Your task to perform on an android device: open app "Viber Messenger" (install if not already installed) Image 0: 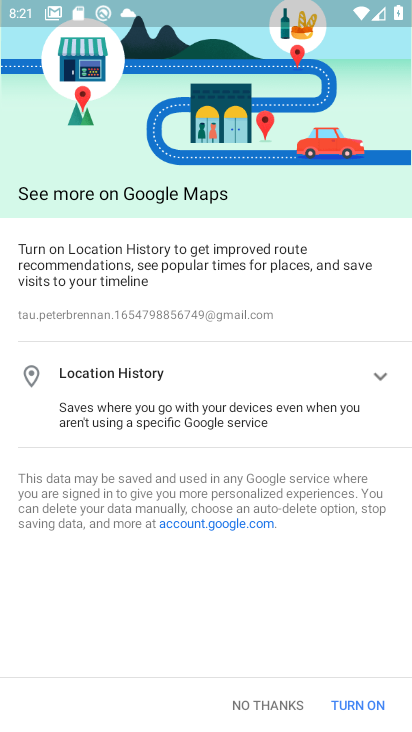
Step 0: press home button
Your task to perform on an android device: open app "Viber Messenger" (install if not already installed) Image 1: 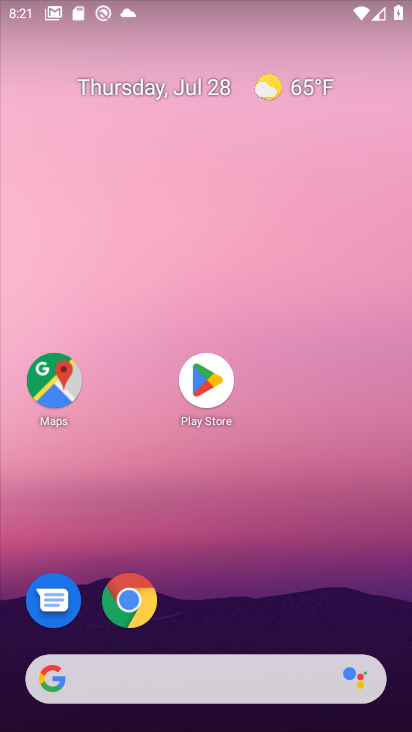
Step 1: click (210, 387)
Your task to perform on an android device: open app "Viber Messenger" (install if not already installed) Image 2: 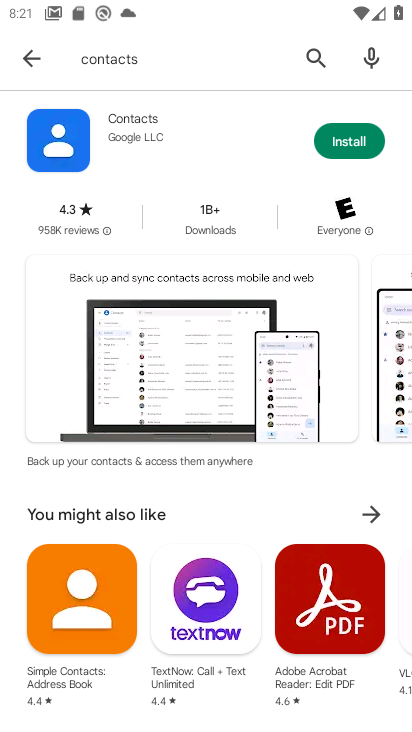
Step 2: click (308, 53)
Your task to perform on an android device: open app "Viber Messenger" (install if not already installed) Image 3: 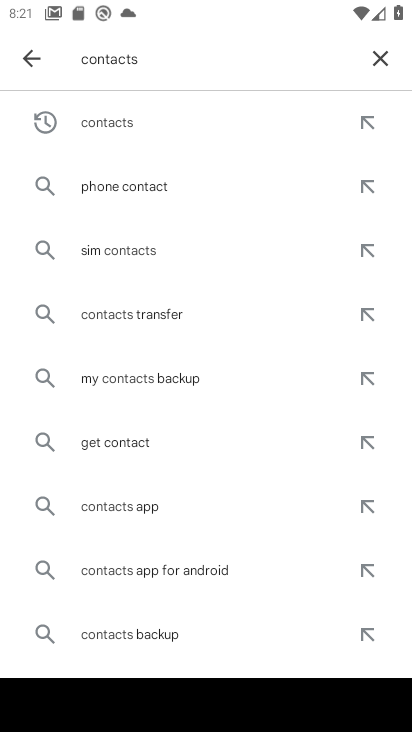
Step 3: click (379, 53)
Your task to perform on an android device: open app "Viber Messenger" (install if not already installed) Image 4: 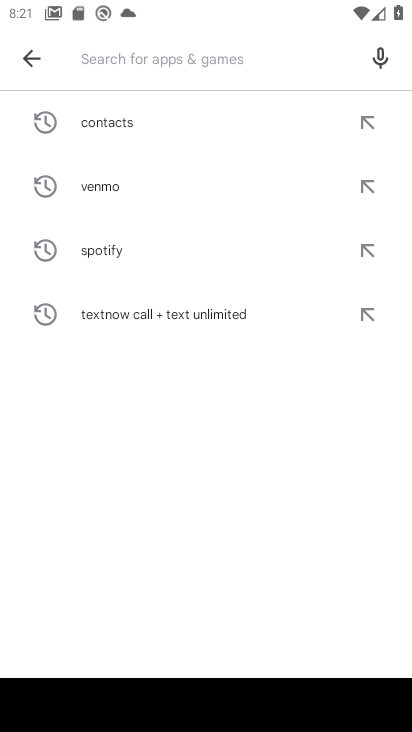
Step 4: type "Viber Messenger"
Your task to perform on an android device: open app "Viber Messenger" (install if not already installed) Image 5: 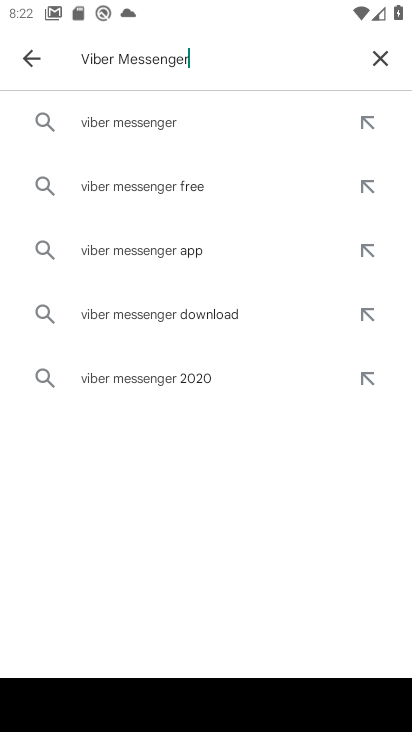
Step 5: click (143, 120)
Your task to perform on an android device: open app "Viber Messenger" (install if not already installed) Image 6: 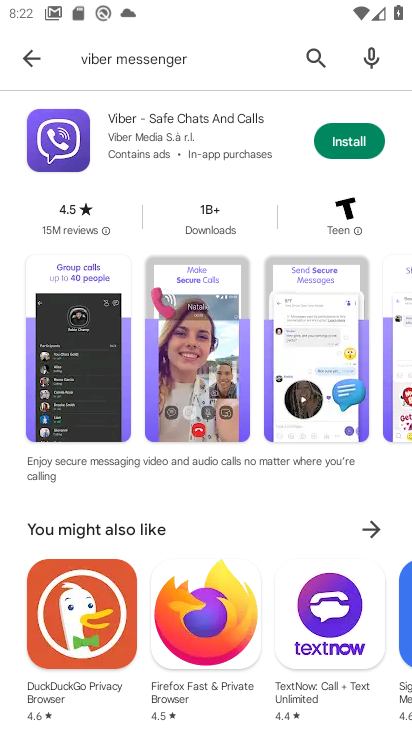
Step 6: click (343, 144)
Your task to perform on an android device: open app "Viber Messenger" (install if not already installed) Image 7: 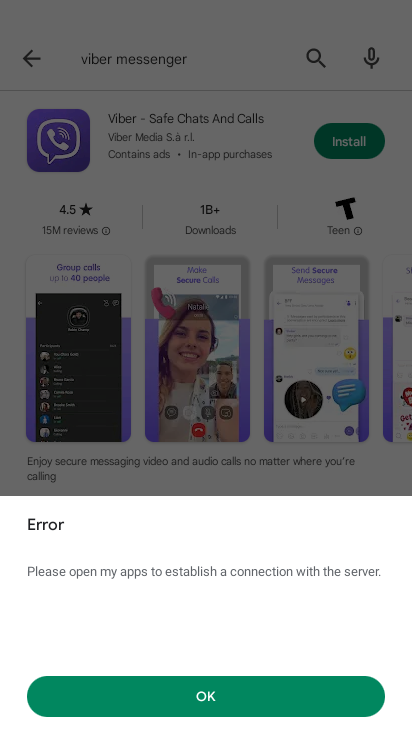
Step 7: click (217, 701)
Your task to perform on an android device: open app "Viber Messenger" (install if not already installed) Image 8: 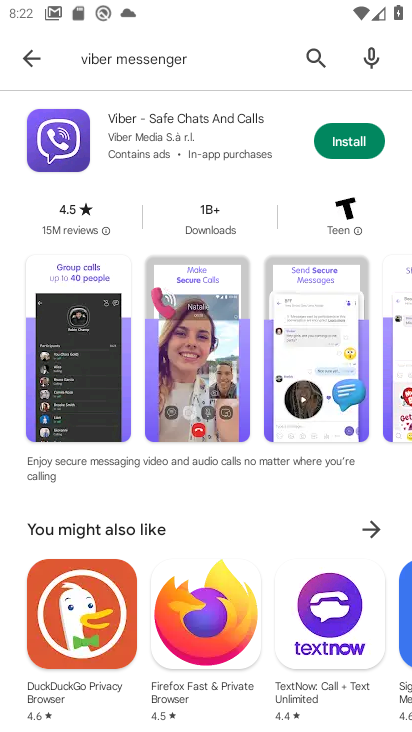
Step 8: click (364, 135)
Your task to perform on an android device: open app "Viber Messenger" (install if not already installed) Image 9: 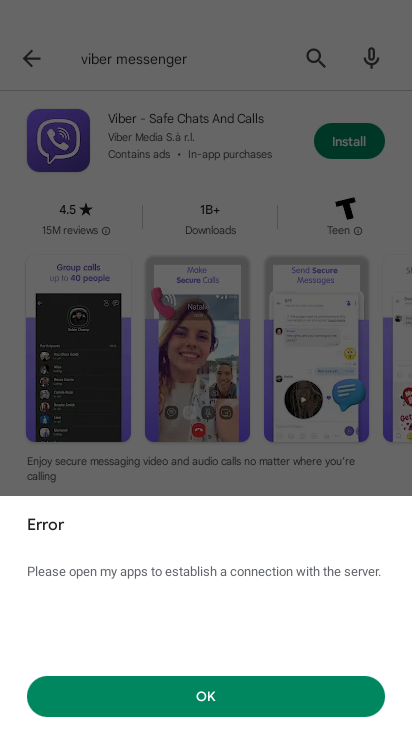
Step 9: task complete